Your task to perform on an android device: install app "Calculator" Image 0: 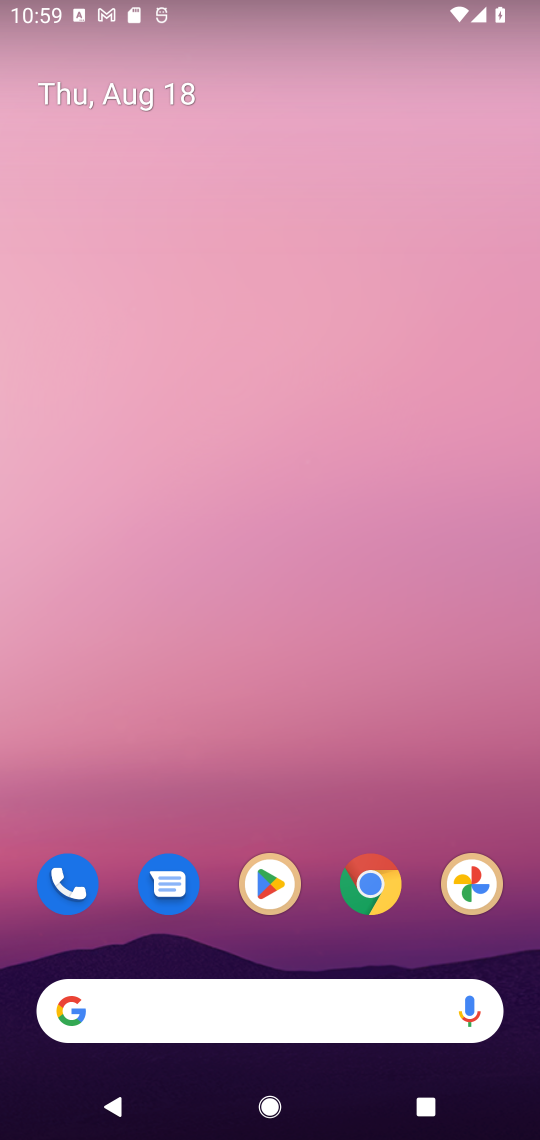
Step 0: drag from (261, 1025) to (297, 263)
Your task to perform on an android device: install app "Calculator" Image 1: 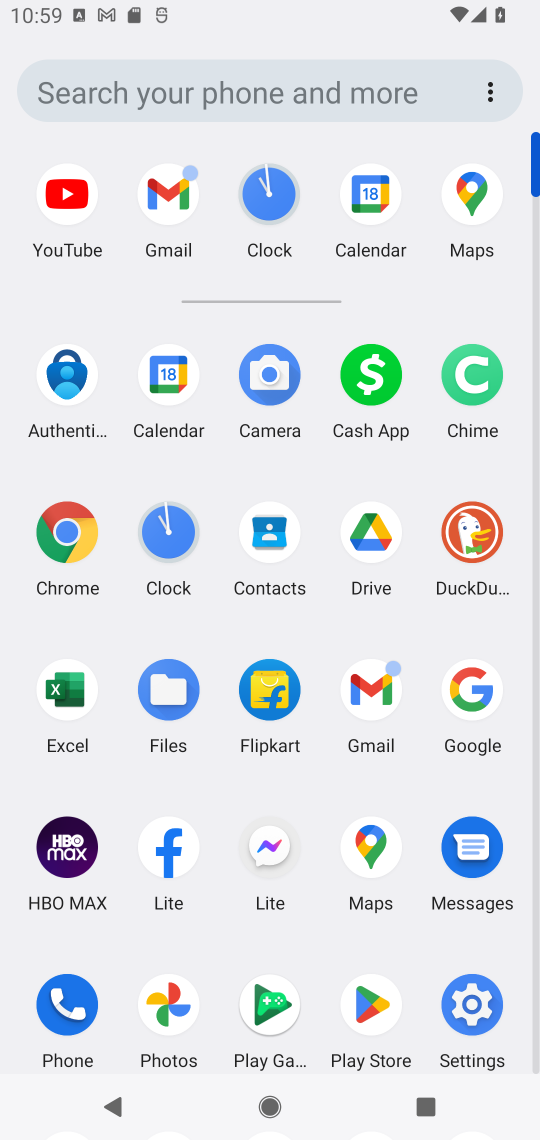
Step 1: click (375, 999)
Your task to perform on an android device: install app "Calculator" Image 2: 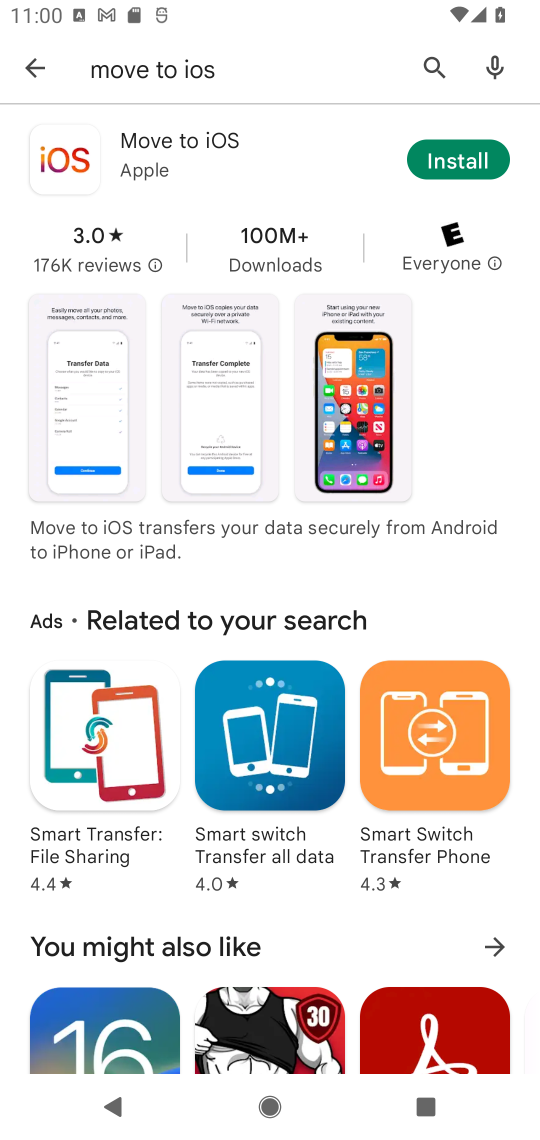
Step 2: press back button
Your task to perform on an android device: install app "Calculator" Image 3: 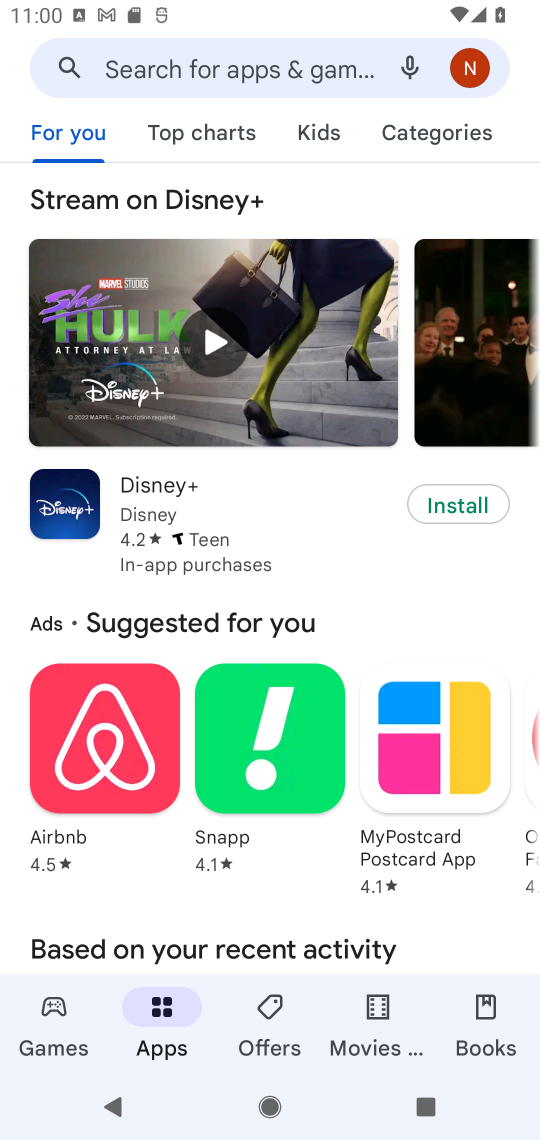
Step 3: click (309, 70)
Your task to perform on an android device: install app "Calculator" Image 4: 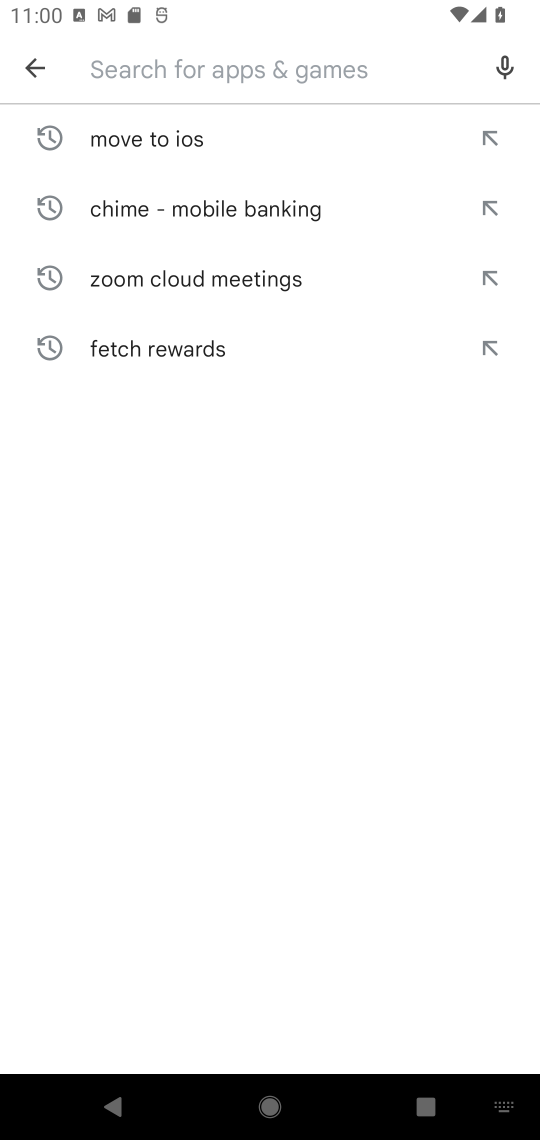
Step 4: type "Calculator"
Your task to perform on an android device: install app "Calculator" Image 5: 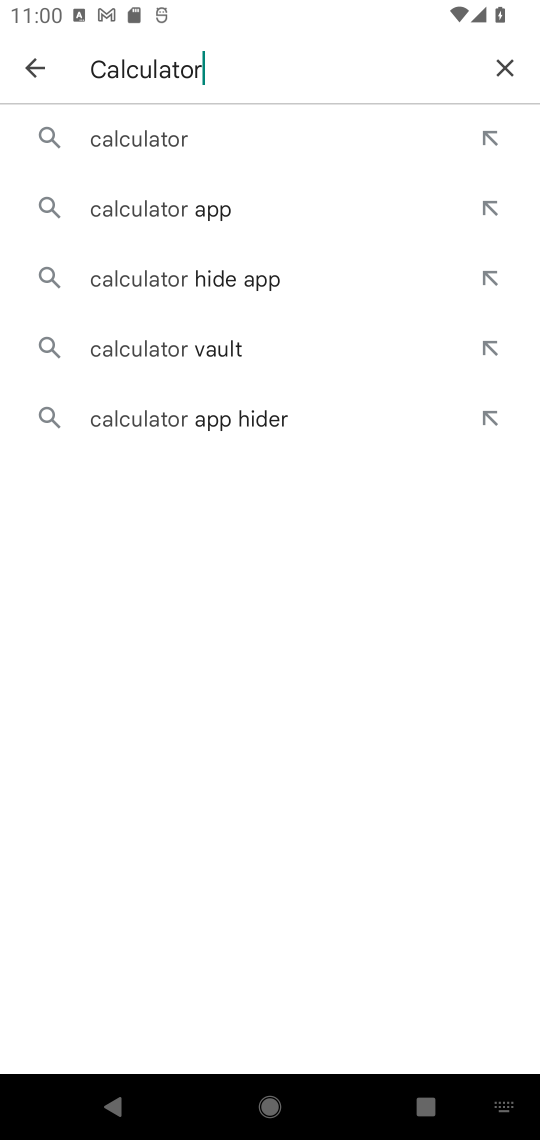
Step 5: click (122, 138)
Your task to perform on an android device: install app "Calculator" Image 6: 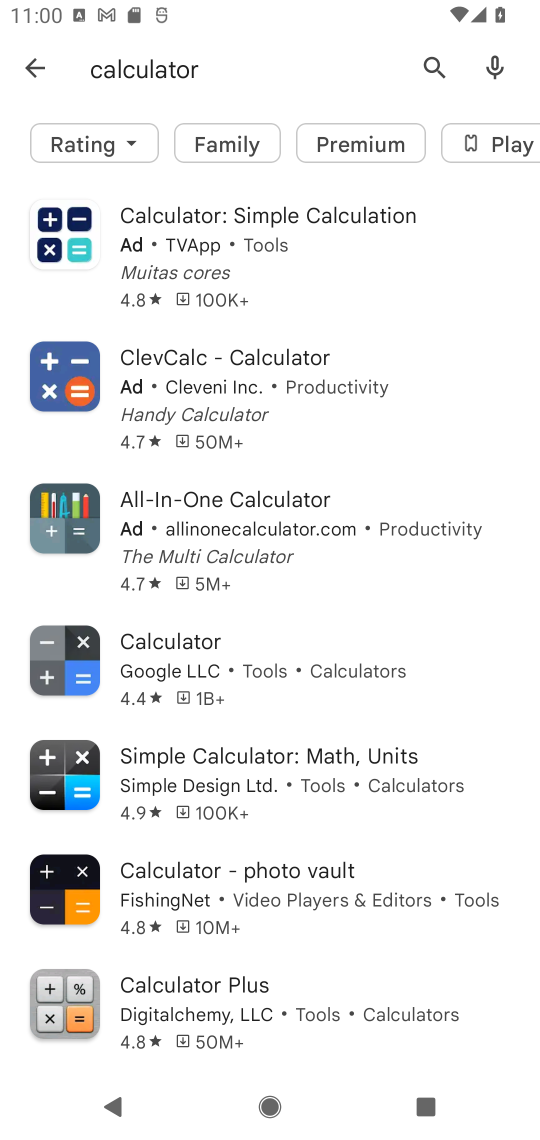
Step 6: click (207, 642)
Your task to perform on an android device: install app "Calculator" Image 7: 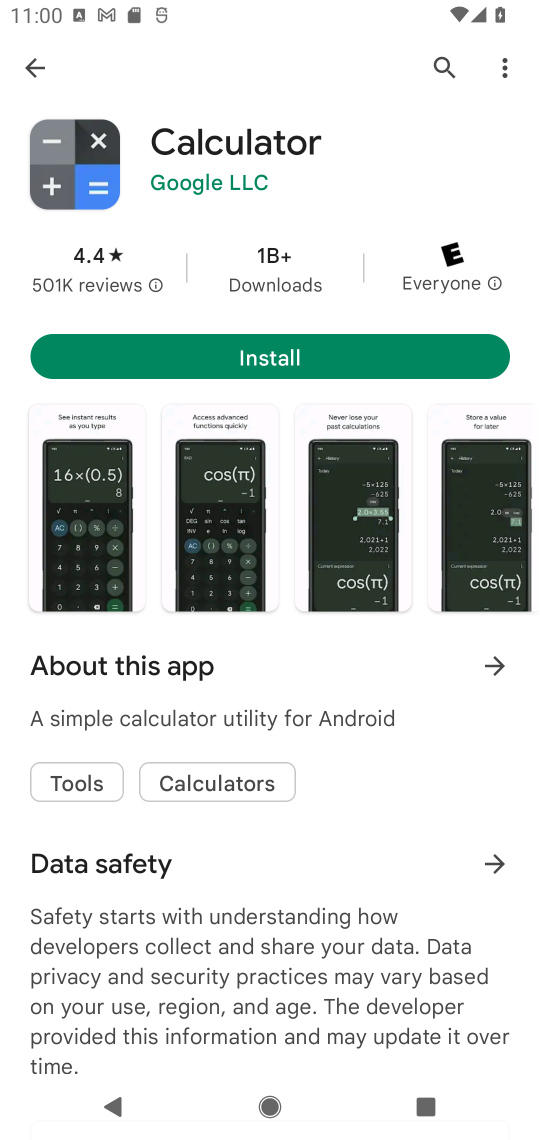
Step 7: click (287, 366)
Your task to perform on an android device: install app "Calculator" Image 8: 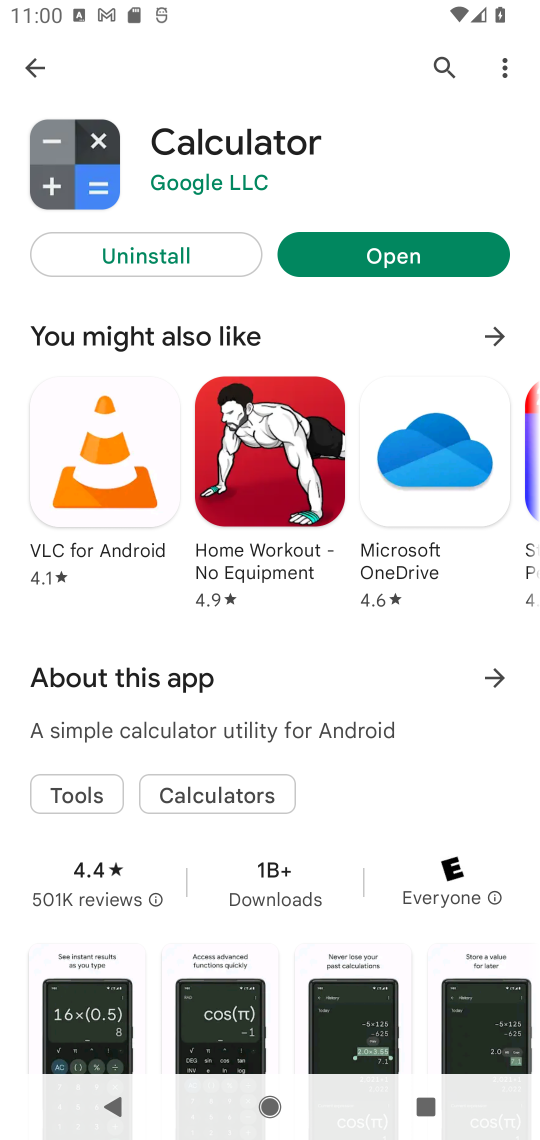
Step 8: task complete